Your task to perform on an android device: Open the calendar app, open the side menu, and click the "Day" option Image 0: 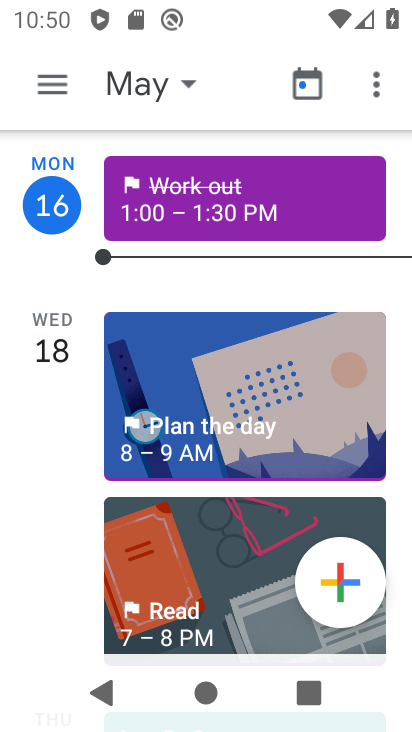
Step 0: click (52, 91)
Your task to perform on an android device: Open the calendar app, open the side menu, and click the "Day" option Image 1: 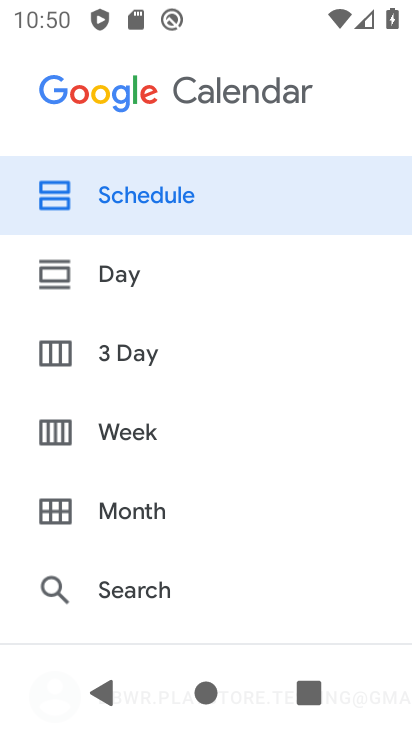
Step 1: click (73, 259)
Your task to perform on an android device: Open the calendar app, open the side menu, and click the "Day" option Image 2: 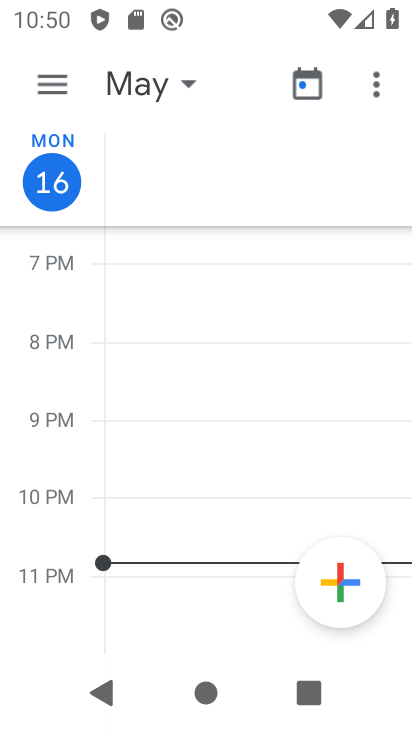
Step 2: task complete